Your task to perform on an android device: Open Google Image 0: 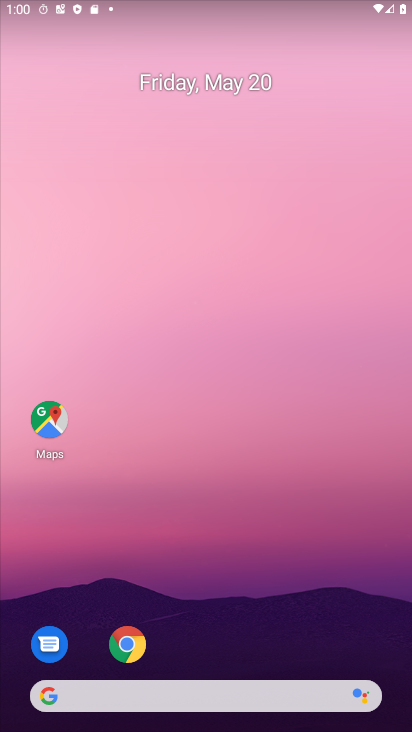
Step 0: drag from (251, 581) to (254, 132)
Your task to perform on an android device: Open Google Image 1: 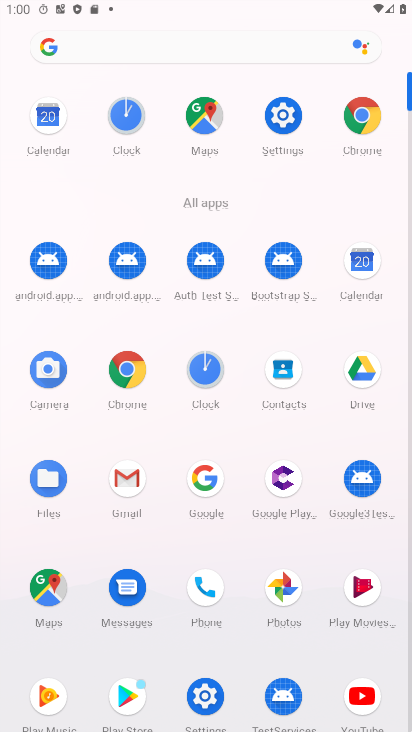
Step 1: click (206, 466)
Your task to perform on an android device: Open Google Image 2: 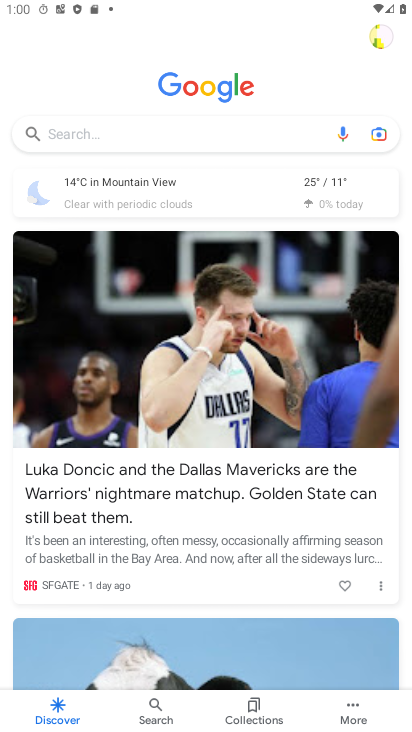
Step 2: task complete